Your task to perform on an android device: Go to Amazon Image 0: 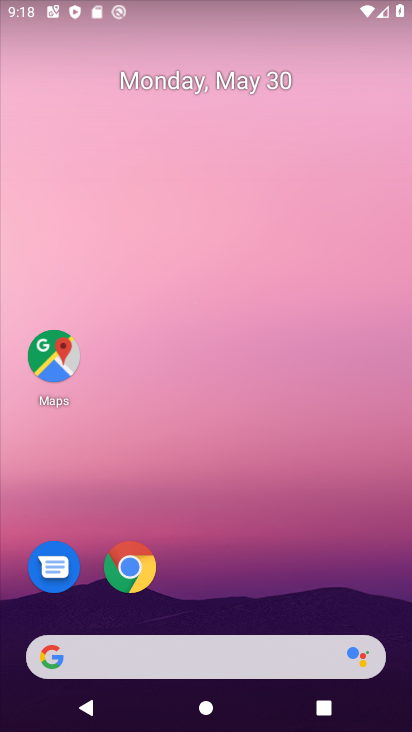
Step 0: click (130, 572)
Your task to perform on an android device: Go to Amazon Image 1: 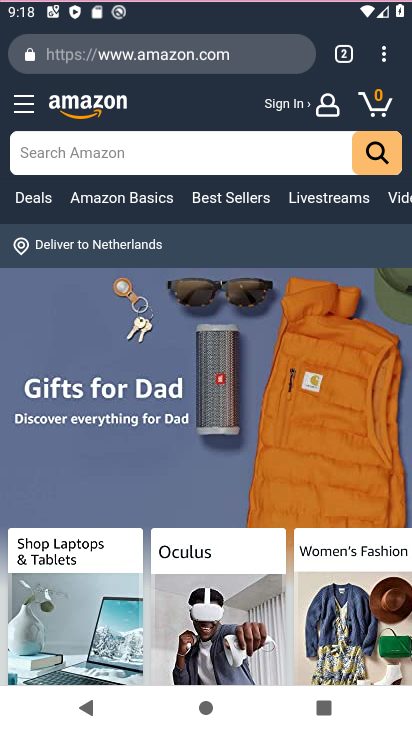
Step 1: click (130, 572)
Your task to perform on an android device: Go to Amazon Image 2: 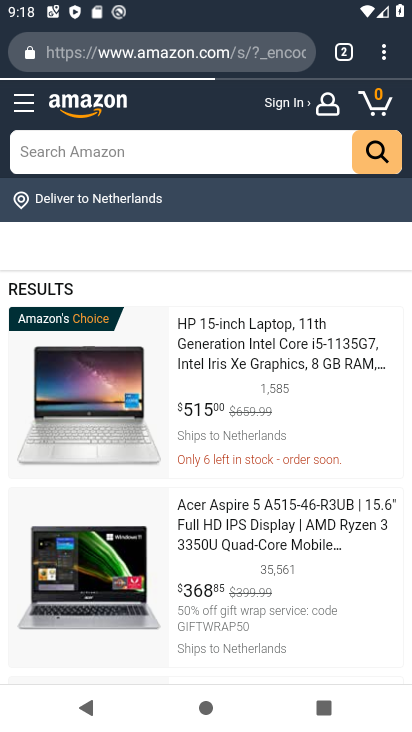
Step 2: task complete